Your task to perform on an android device: turn on bluetooth scan Image 0: 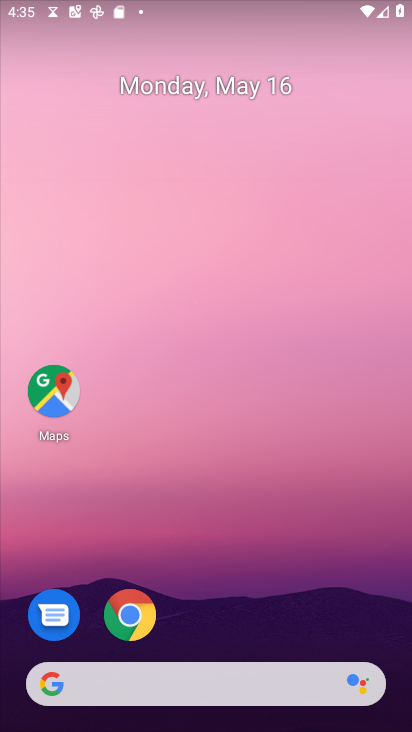
Step 0: drag from (209, 639) to (247, 59)
Your task to perform on an android device: turn on bluetooth scan Image 1: 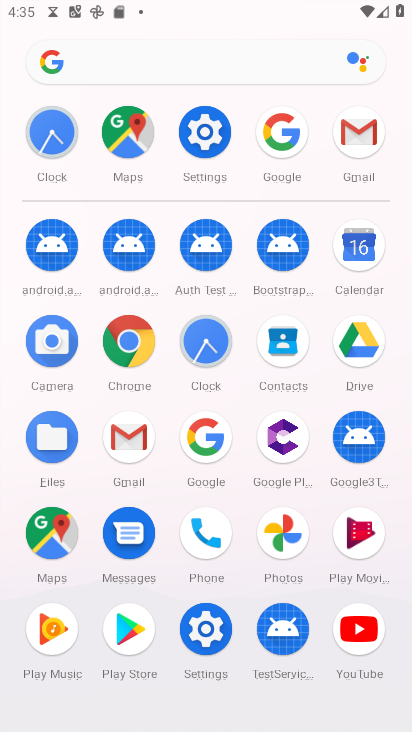
Step 1: click (211, 141)
Your task to perform on an android device: turn on bluetooth scan Image 2: 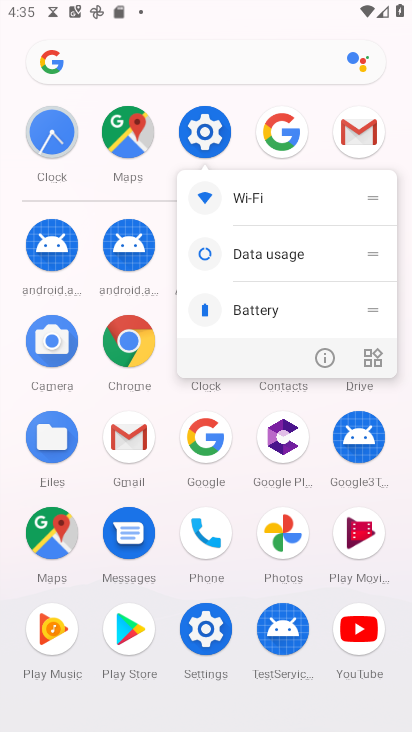
Step 2: click (206, 135)
Your task to perform on an android device: turn on bluetooth scan Image 3: 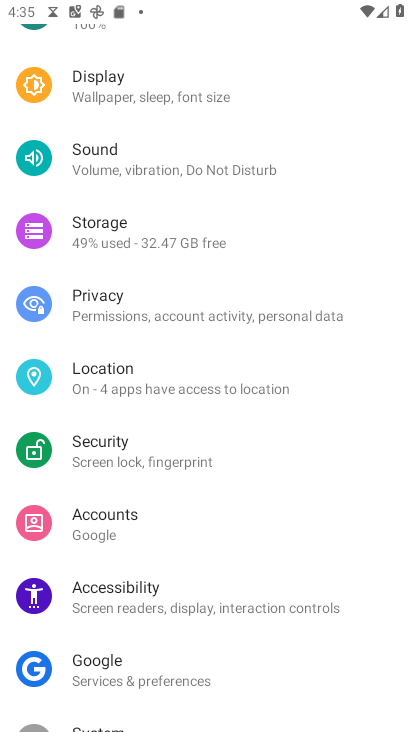
Step 3: drag from (117, 663) to (163, 335)
Your task to perform on an android device: turn on bluetooth scan Image 4: 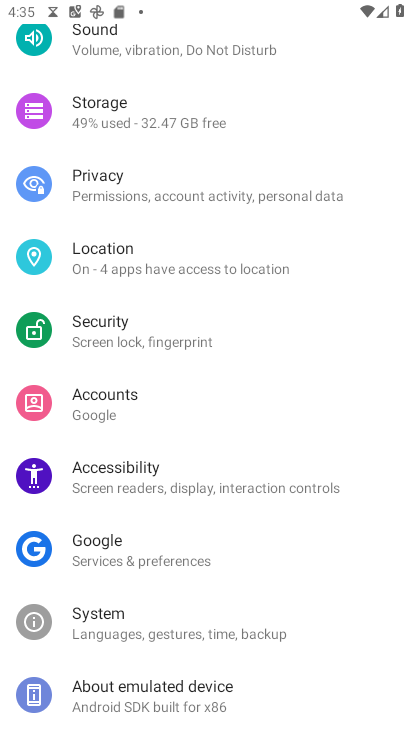
Step 4: click (119, 278)
Your task to perform on an android device: turn on bluetooth scan Image 5: 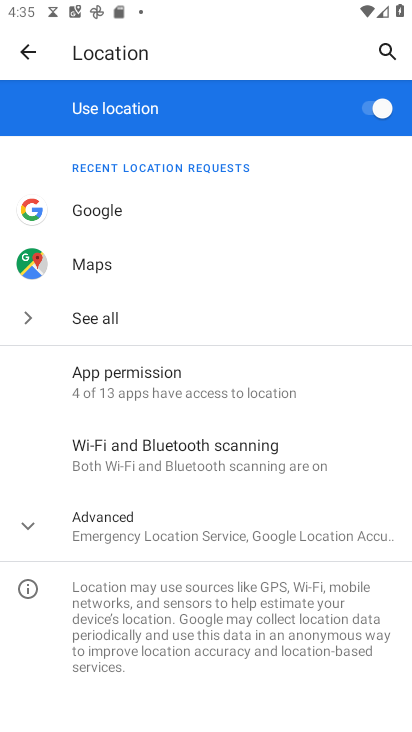
Step 5: click (110, 524)
Your task to perform on an android device: turn on bluetooth scan Image 6: 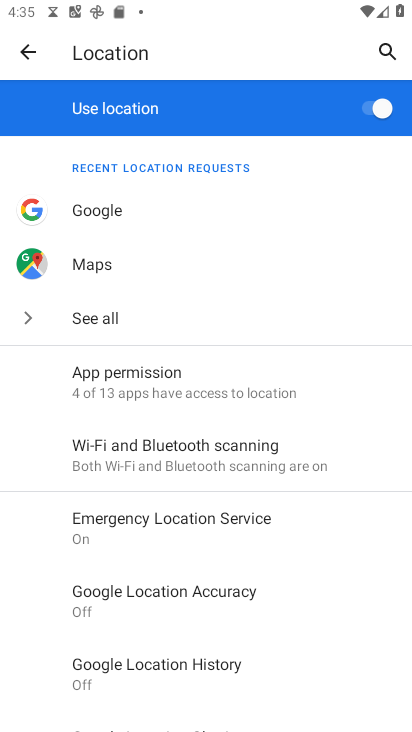
Step 6: drag from (160, 660) to (188, 512)
Your task to perform on an android device: turn on bluetooth scan Image 7: 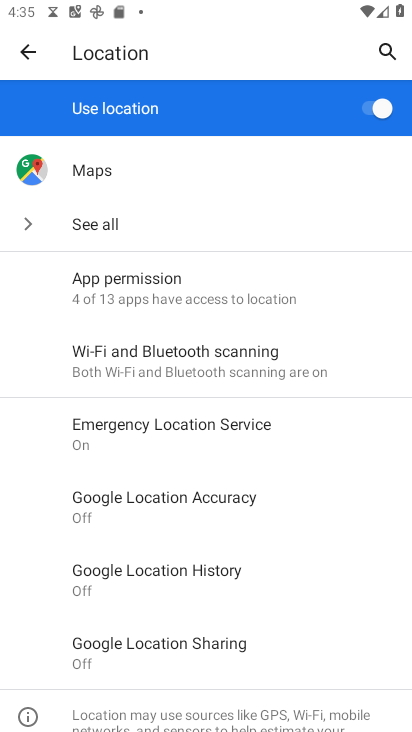
Step 7: click (176, 379)
Your task to perform on an android device: turn on bluetooth scan Image 8: 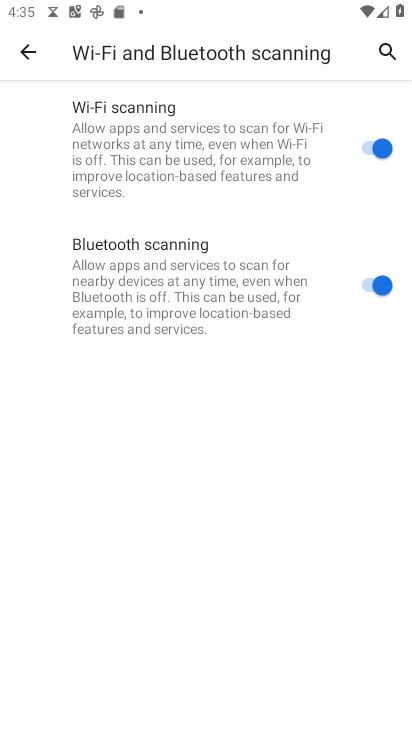
Step 8: task complete